Your task to perform on an android device: Go to sound settings Image 0: 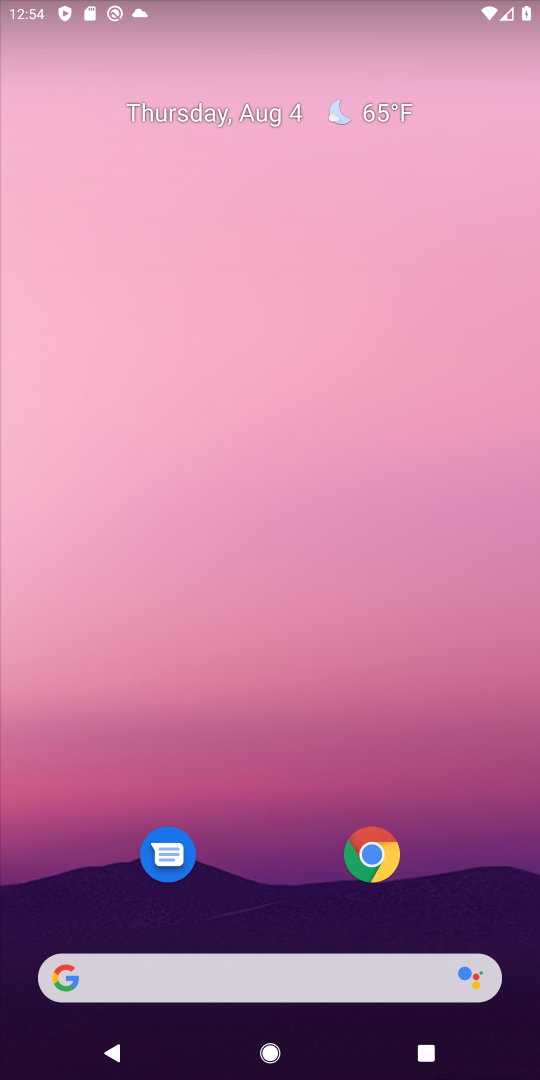
Step 0: drag from (334, 724) to (377, 306)
Your task to perform on an android device: Go to sound settings Image 1: 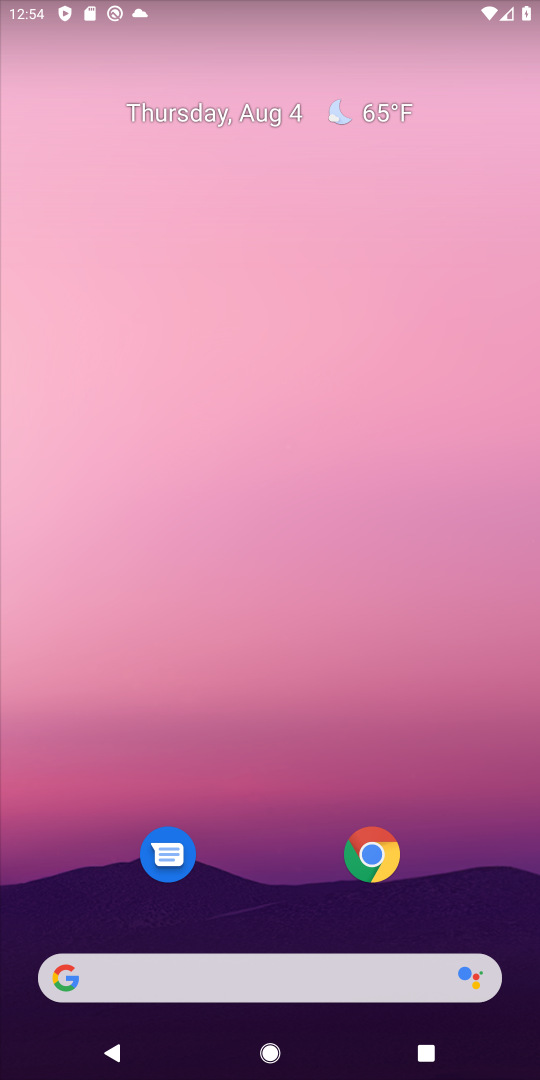
Step 1: drag from (286, 739) to (349, 317)
Your task to perform on an android device: Go to sound settings Image 2: 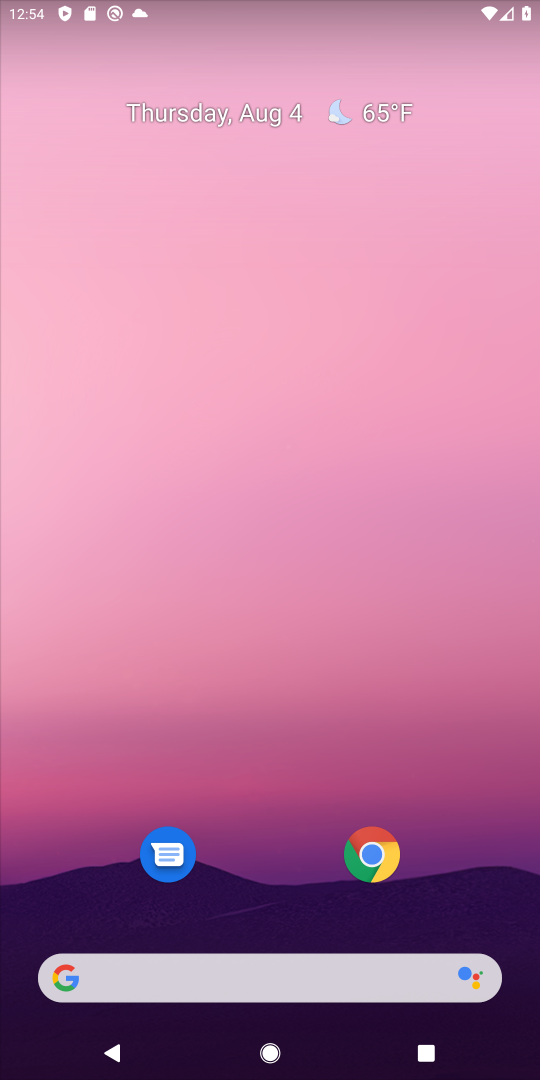
Step 2: drag from (256, 772) to (263, 230)
Your task to perform on an android device: Go to sound settings Image 3: 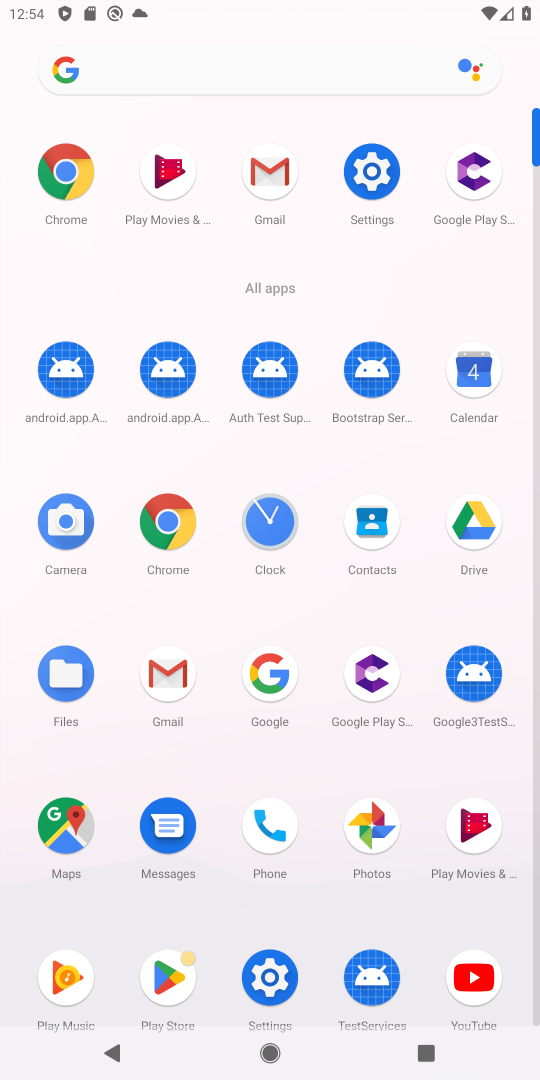
Step 3: click (370, 172)
Your task to perform on an android device: Go to sound settings Image 4: 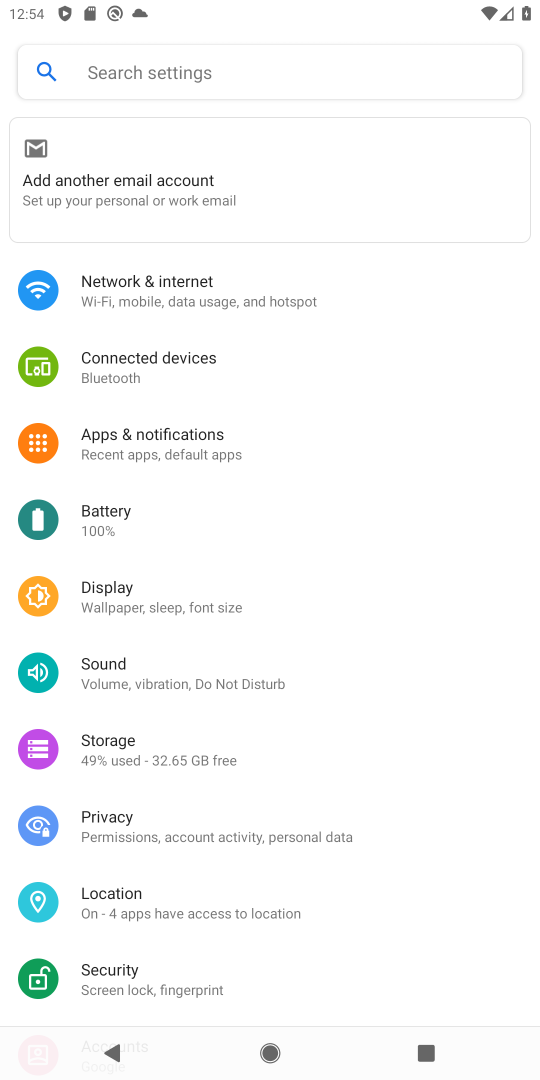
Step 4: click (118, 671)
Your task to perform on an android device: Go to sound settings Image 5: 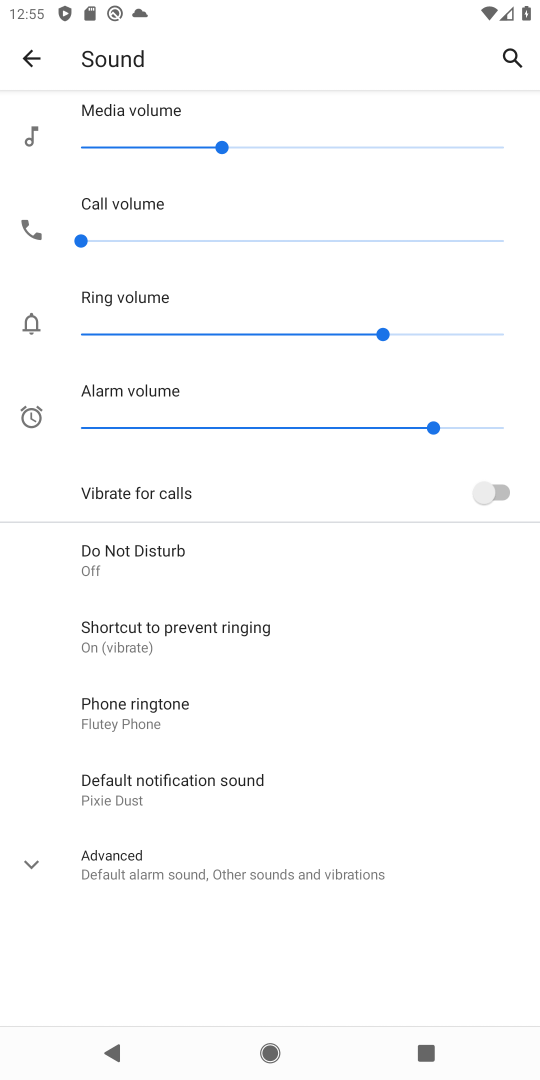
Step 5: task complete